Your task to perform on an android device: When is my next meeting? Image 0: 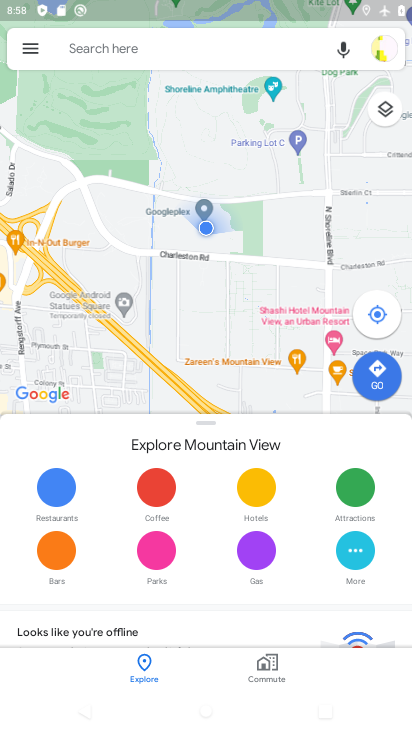
Step 0: press back button
Your task to perform on an android device: When is my next meeting? Image 1: 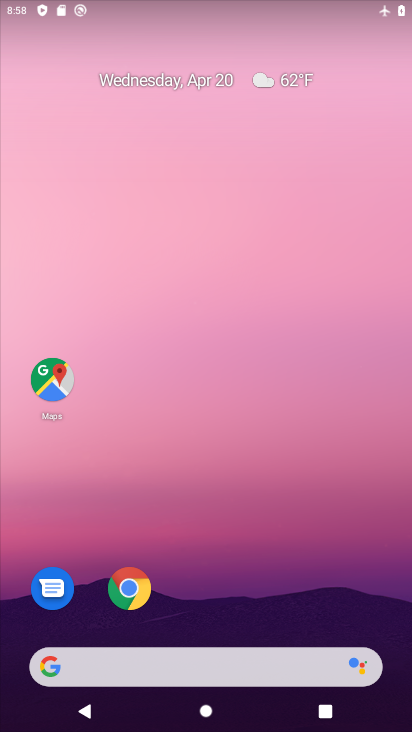
Step 1: drag from (304, 551) to (174, 10)
Your task to perform on an android device: When is my next meeting? Image 2: 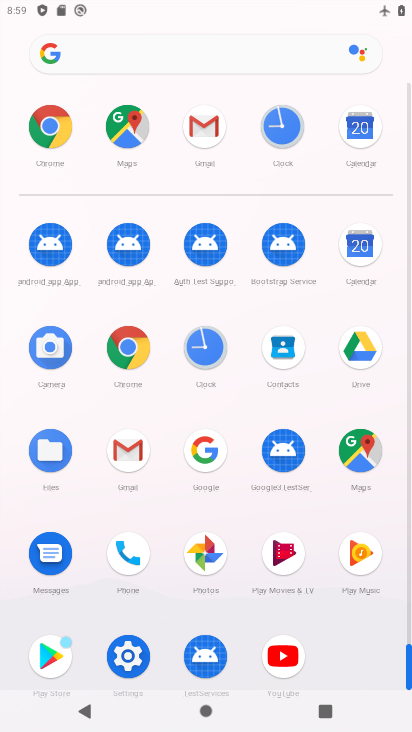
Step 2: drag from (8, 517) to (4, 259)
Your task to perform on an android device: When is my next meeting? Image 3: 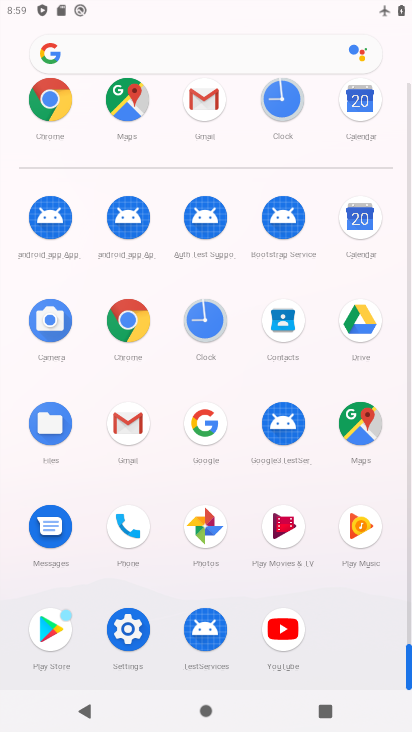
Step 3: drag from (8, 218) to (13, 516)
Your task to perform on an android device: When is my next meeting? Image 4: 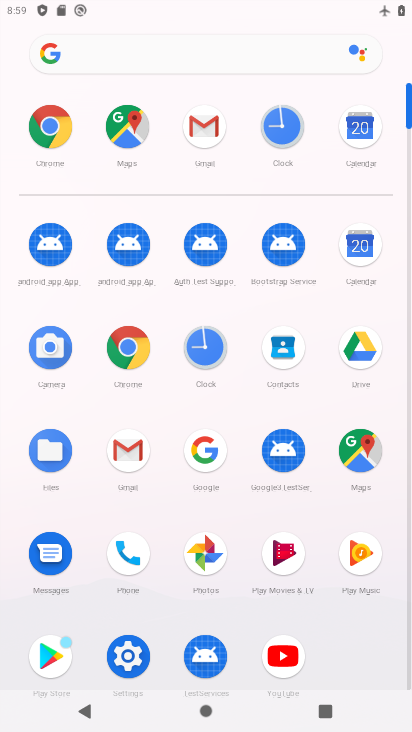
Step 4: drag from (18, 242) to (4, 455)
Your task to perform on an android device: When is my next meeting? Image 5: 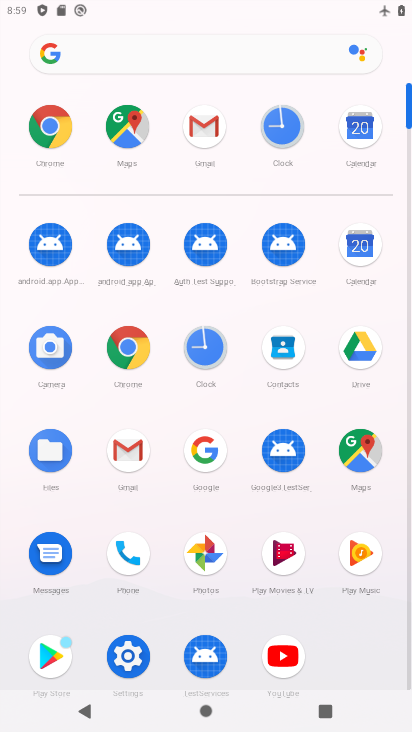
Step 5: drag from (14, 479) to (11, 272)
Your task to perform on an android device: When is my next meeting? Image 6: 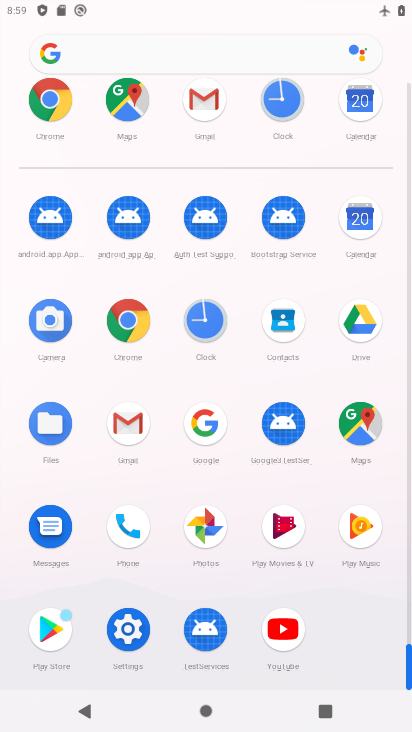
Step 6: drag from (8, 565) to (8, 398)
Your task to perform on an android device: When is my next meeting? Image 7: 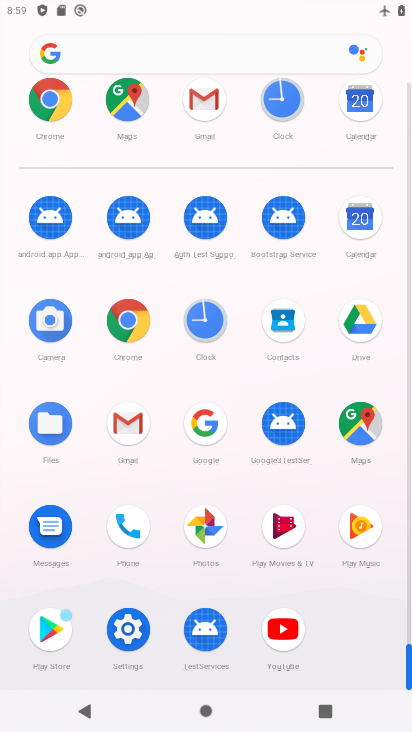
Step 7: click (358, 211)
Your task to perform on an android device: When is my next meeting? Image 8: 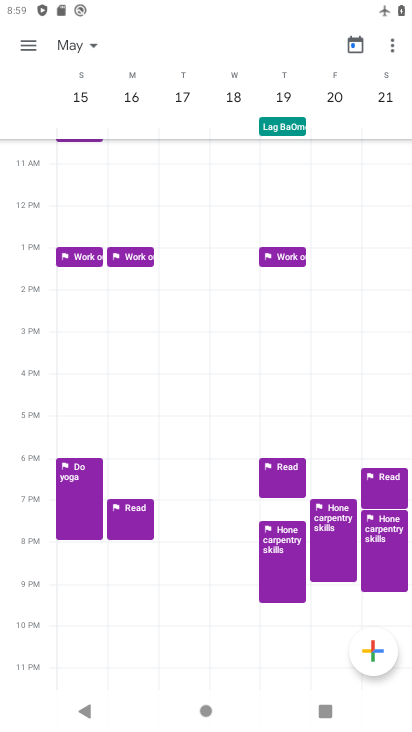
Step 8: click (33, 39)
Your task to perform on an android device: When is my next meeting? Image 9: 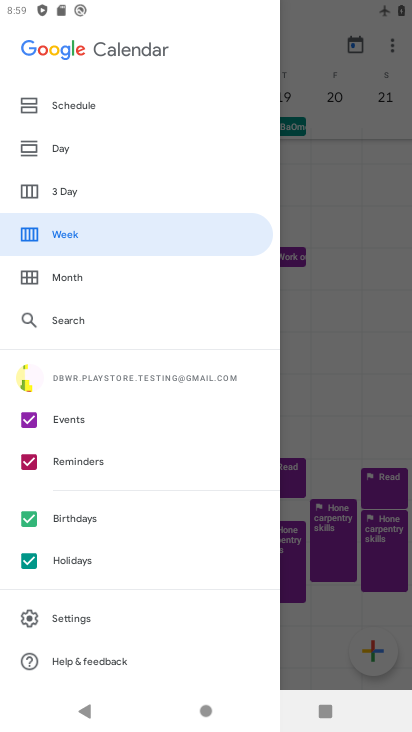
Step 9: click (26, 552)
Your task to perform on an android device: When is my next meeting? Image 10: 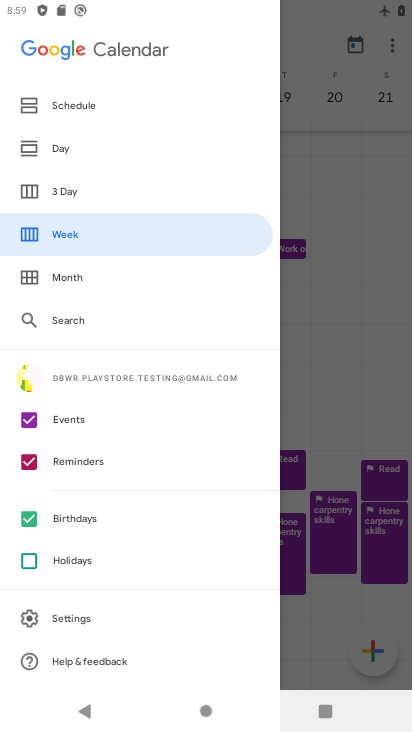
Step 10: click (30, 508)
Your task to perform on an android device: When is my next meeting? Image 11: 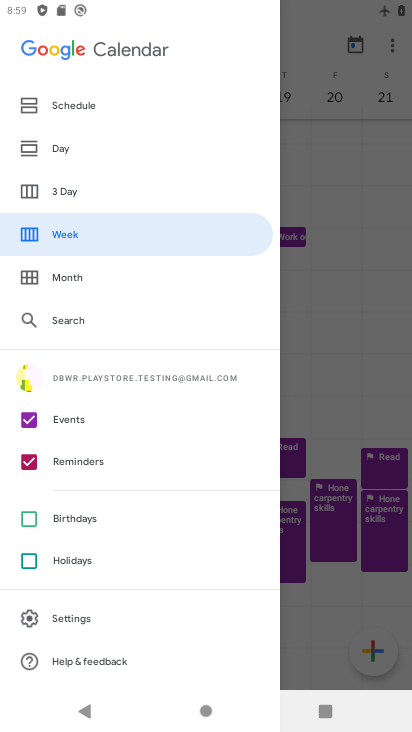
Step 11: click (32, 421)
Your task to perform on an android device: When is my next meeting? Image 12: 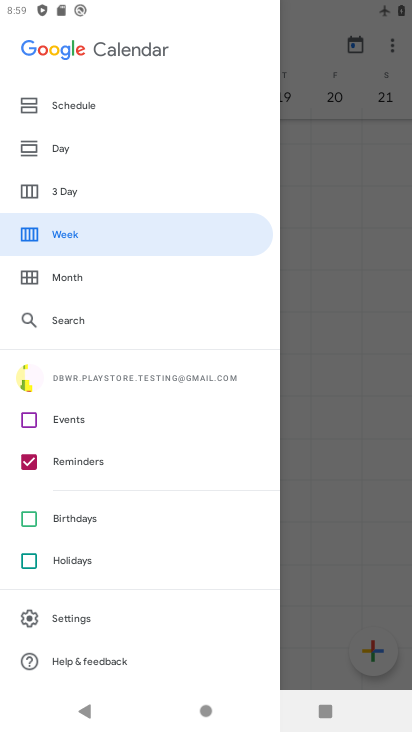
Step 12: click (89, 102)
Your task to perform on an android device: When is my next meeting? Image 13: 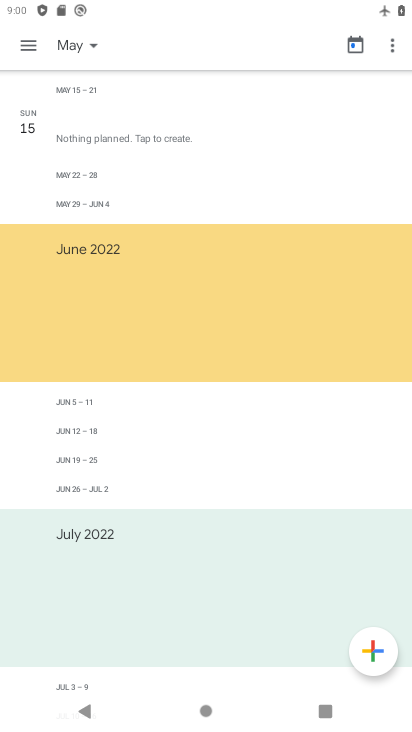
Step 13: task complete